Your task to perform on an android device: Go to Maps Image 0: 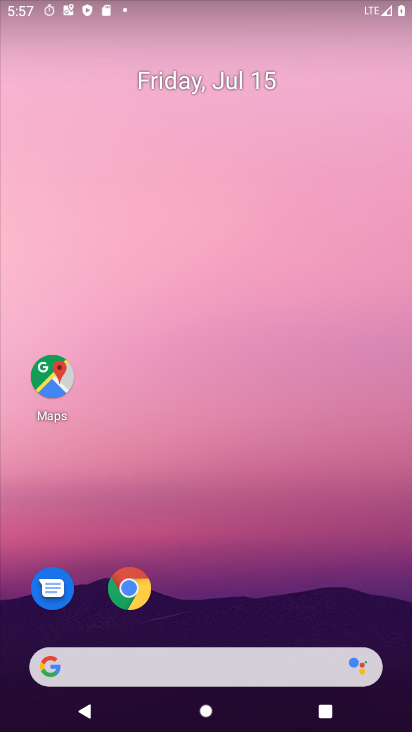
Step 0: drag from (328, 635) to (369, 0)
Your task to perform on an android device: Go to Maps Image 1: 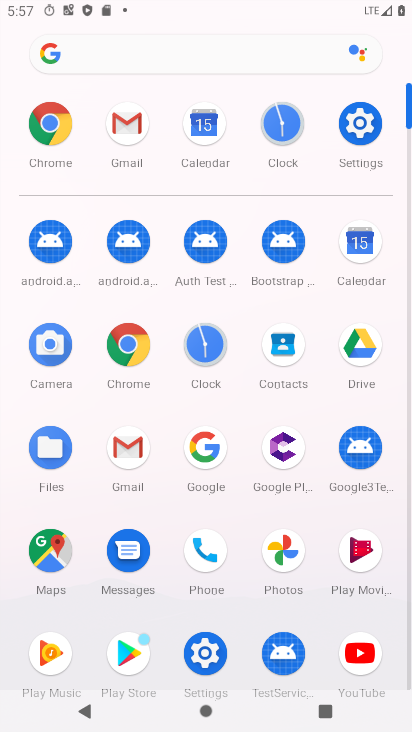
Step 1: click (63, 542)
Your task to perform on an android device: Go to Maps Image 2: 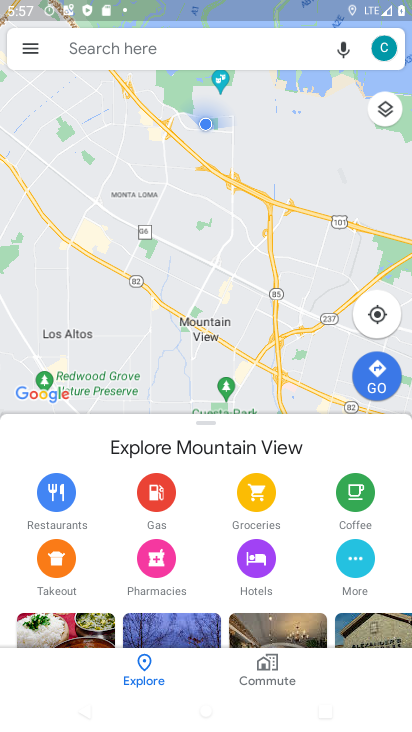
Step 2: task complete